Your task to perform on an android device: change your default location settings in chrome Image 0: 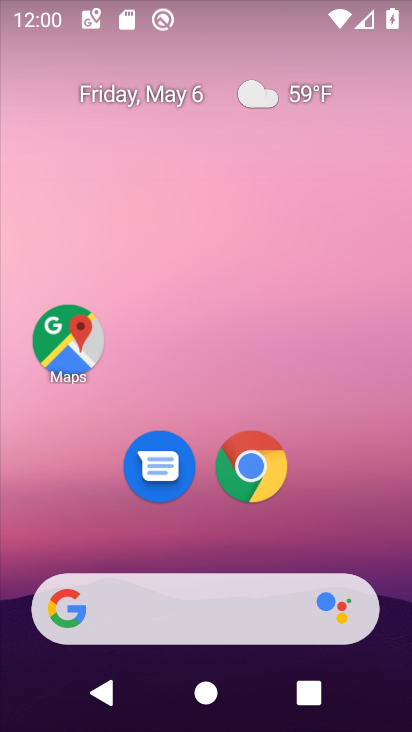
Step 0: click (250, 456)
Your task to perform on an android device: change your default location settings in chrome Image 1: 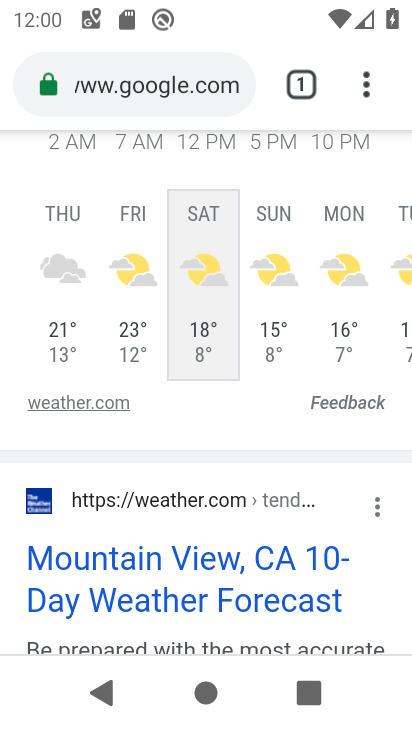
Step 1: drag from (385, 112) to (180, 514)
Your task to perform on an android device: change your default location settings in chrome Image 2: 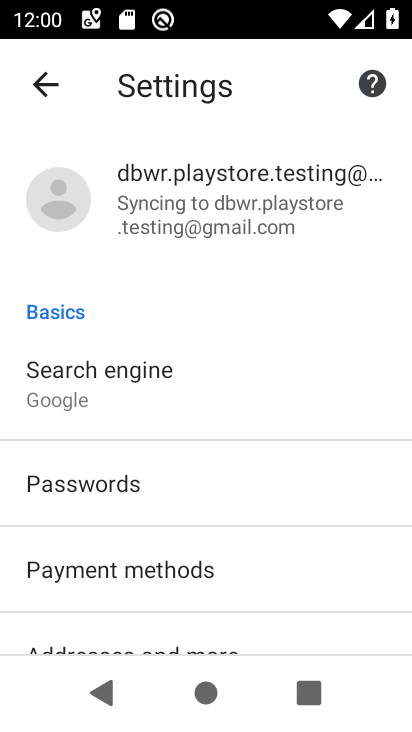
Step 2: drag from (226, 571) to (201, 214)
Your task to perform on an android device: change your default location settings in chrome Image 3: 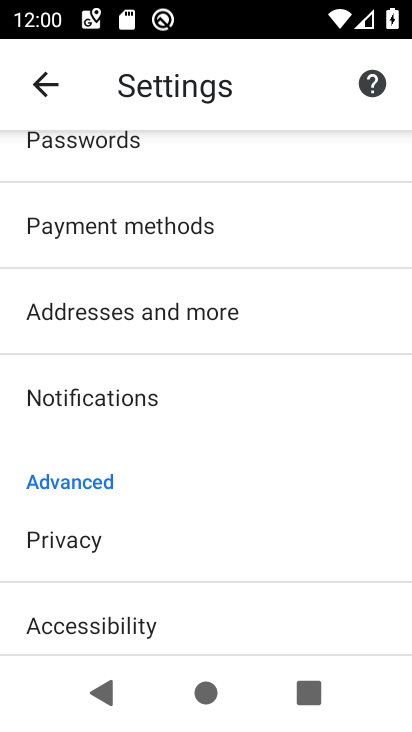
Step 3: drag from (188, 525) to (120, 125)
Your task to perform on an android device: change your default location settings in chrome Image 4: 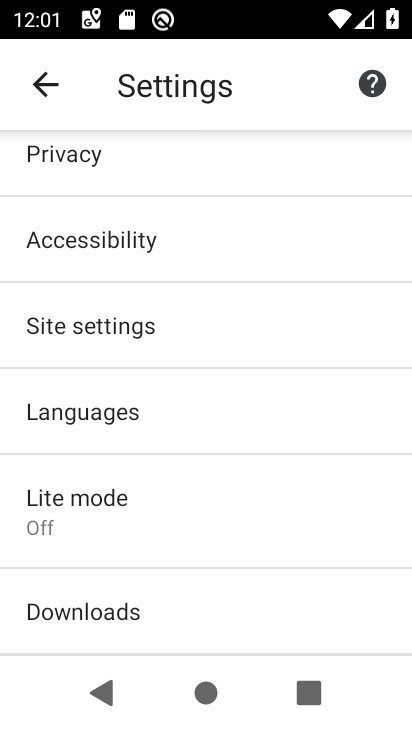
Step 4: click (154, 325)
Your task to perform on an android device: change your default location settings in chrome Image 5: 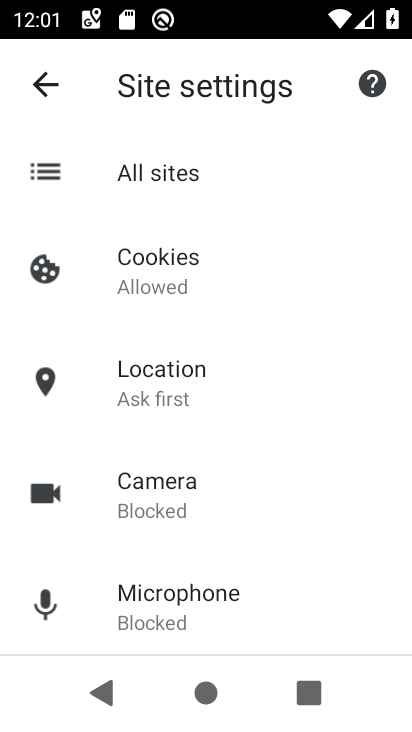
Step 5: click (204, 391)
Your task to perform on an android device: change your default location settings in chrome Image 6: 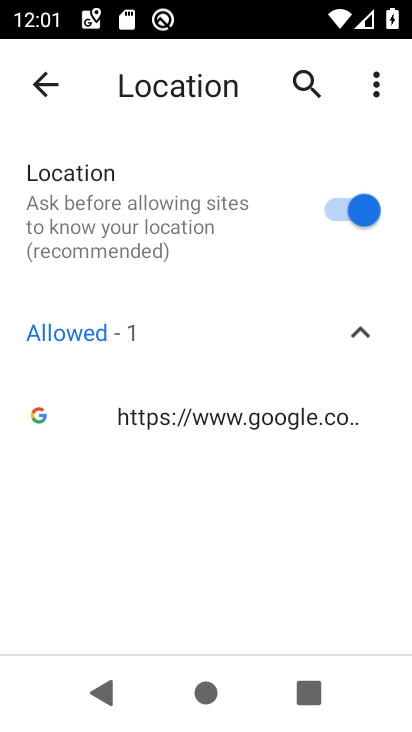
Step 6: task complete